Your task to perform on an android device: What is the news today? Image 0: 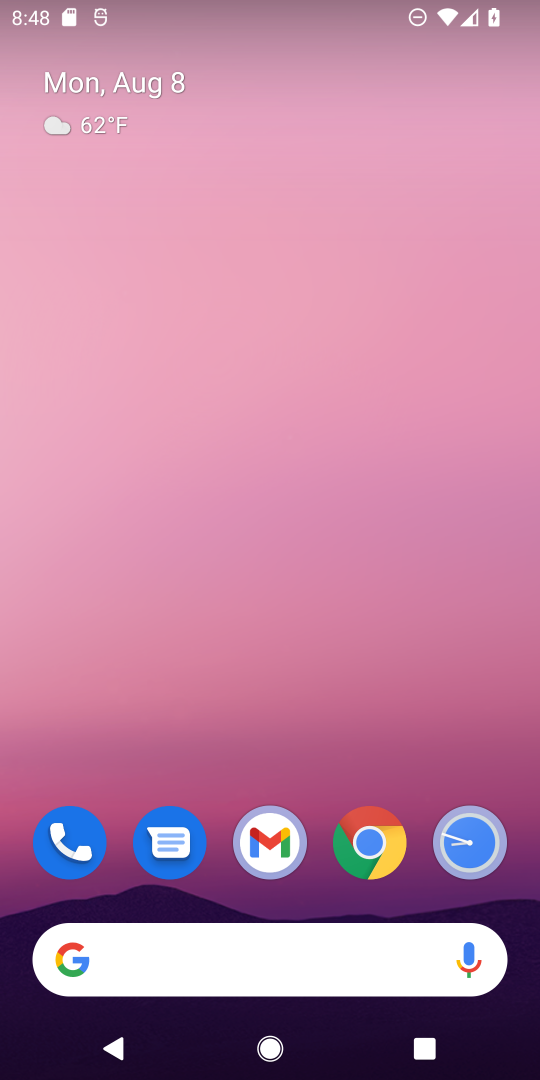
Step 0: click (296, 969)
Your task to perform on an android device: What is the news today? Image 1: 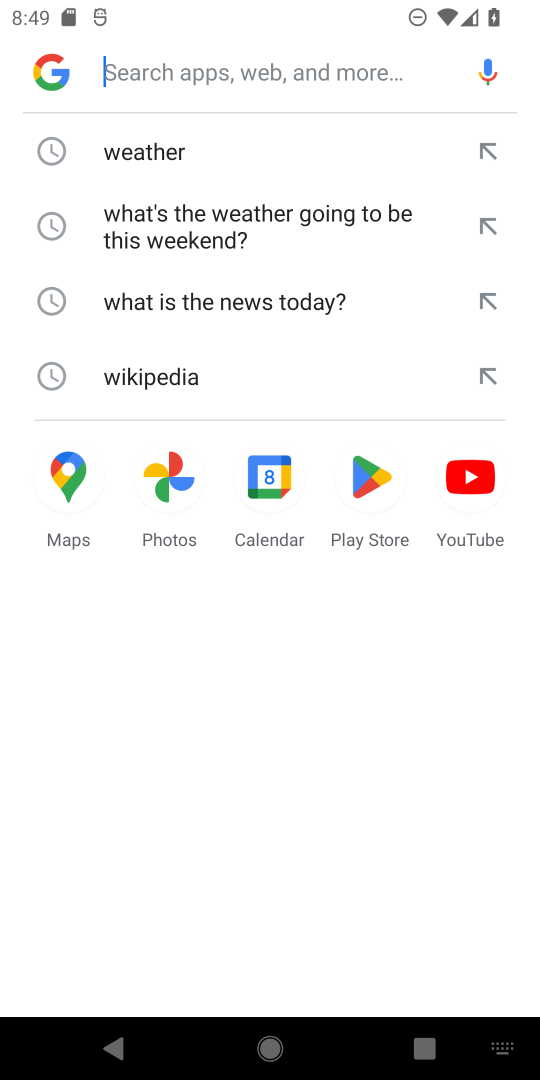
Step 1: click (304, 300)
Your task to perform on an android device: What is the news today? Image 2: 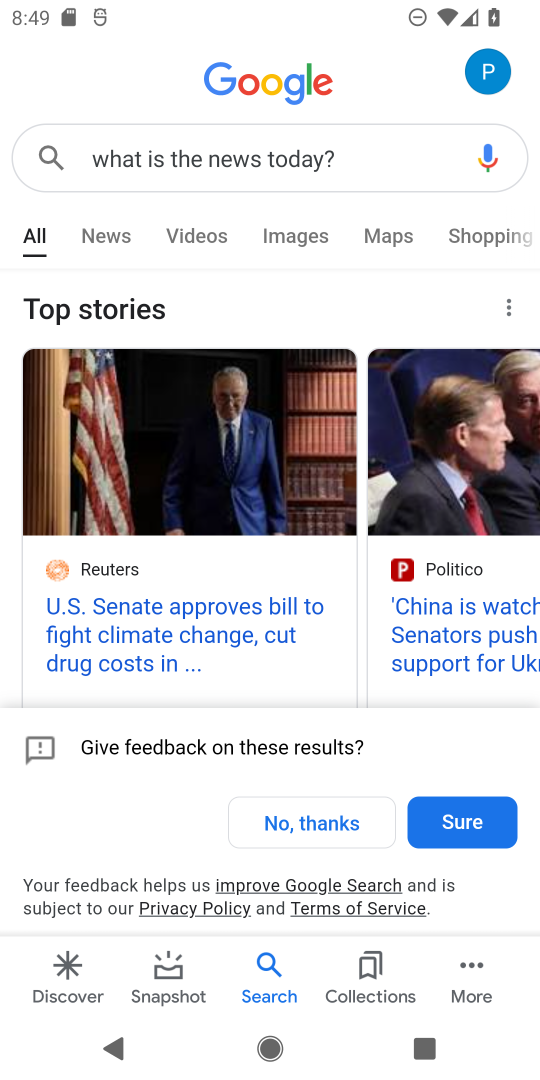
Step 2: task complete